Your task to perform on an android device: turn vacation reply on in the gmail app Image 0: 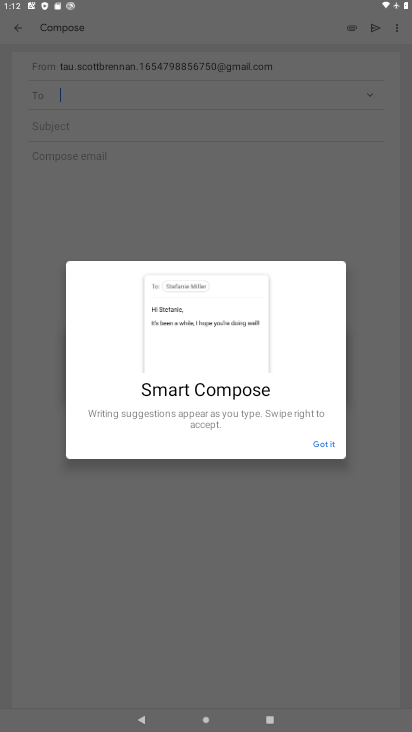
Step 0: press home button
Your task to perform on an android device: turn vacation reply on in the gmail app Image 1: 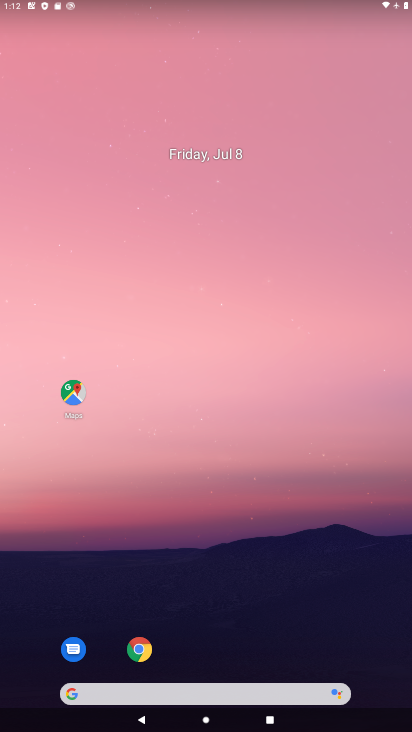
Step 1: drag from (30, 728) to (405, 10)
Your task to perform on an android device: turn vacation reply on in the gmail app Image 2: 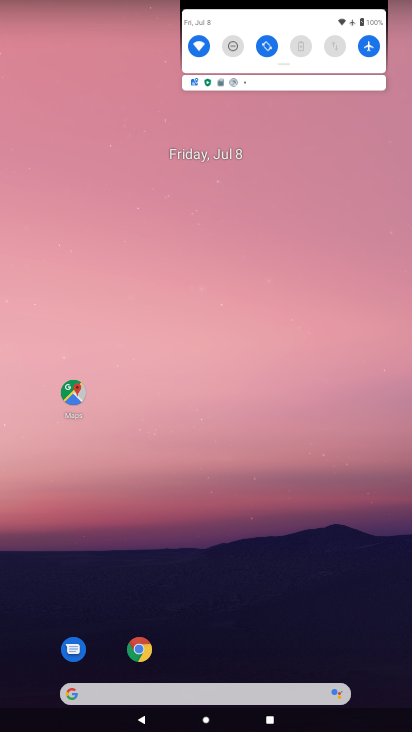
Step 2: drag from (53, 705) to (178, 275)
Your task to perform on an android device: turn vacation reply on in the gmail app Image 3: 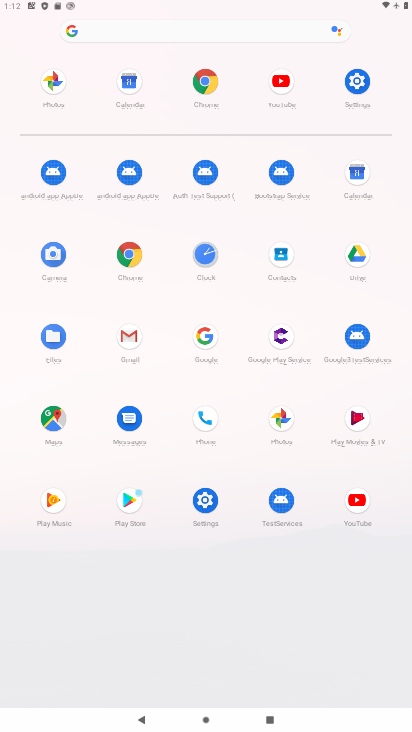
Step 3: click (128, 337)
Your task to perform on an android device: turn vacation reply on in the gmail app Image 4: 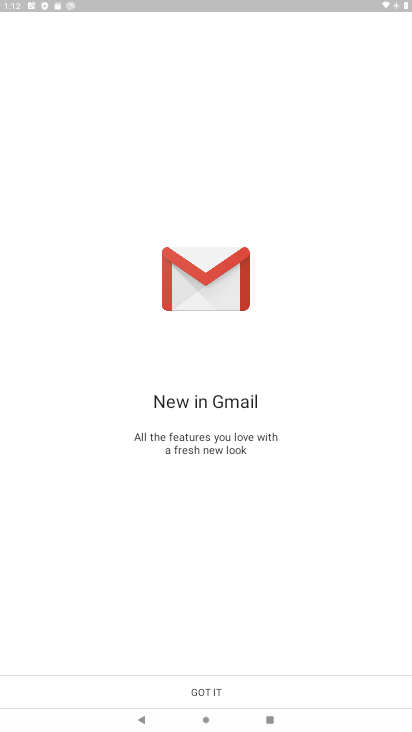
Step 4: click (192, 679)
Your task to perform on an android device: turn vacation reply on in the gmail app Image 5: 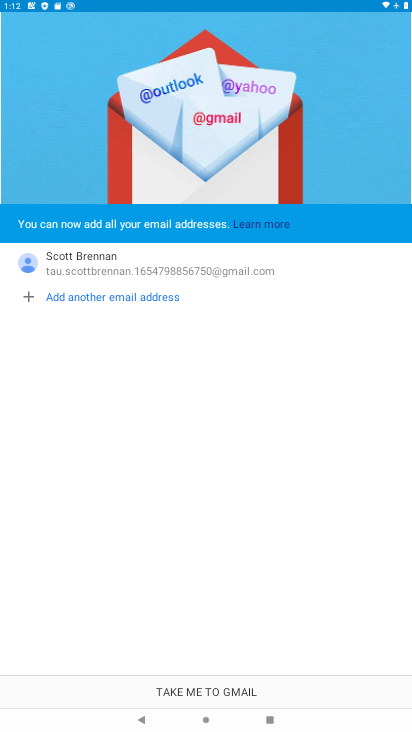
Step 5: click (208, 682)
Your task to perform on an android device: turn vacation reply on in the gmail app Image 6: 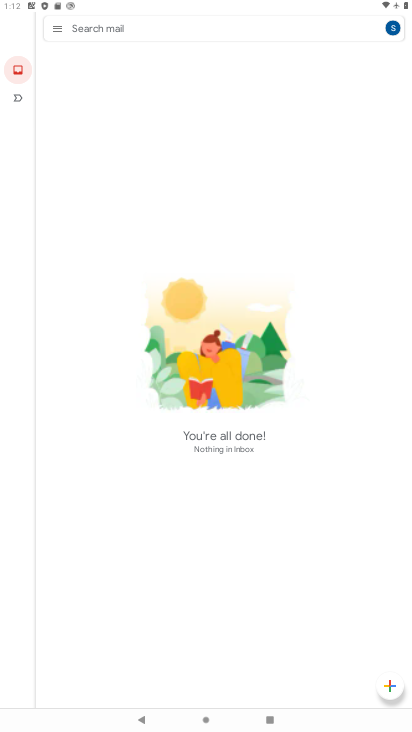
Step 6: click (54, 27)
Your task to perform on an android device: turn vacation reply on in the gmail app Image 7: 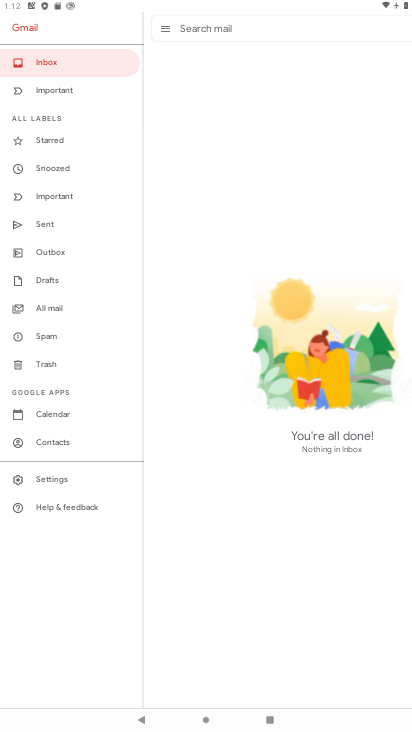
Step 7: click (55, 63)
Your task to perform on an android device: turn vacation reply on in the gmail app Image 8: 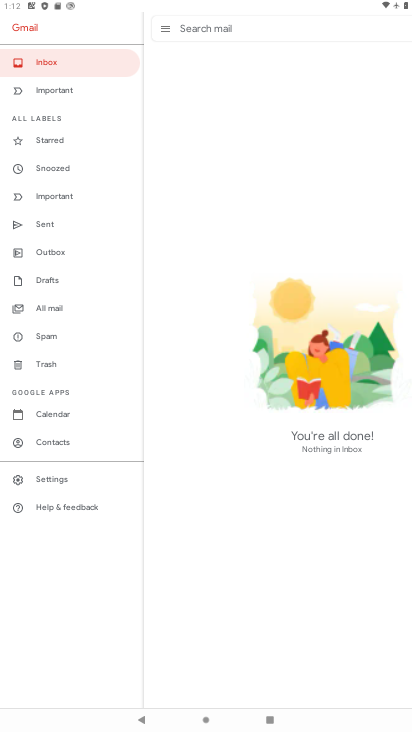
Step 8: click (40, 63)
Your task to perform on an android device: turn vacation reply on in the gmail app Image 9: 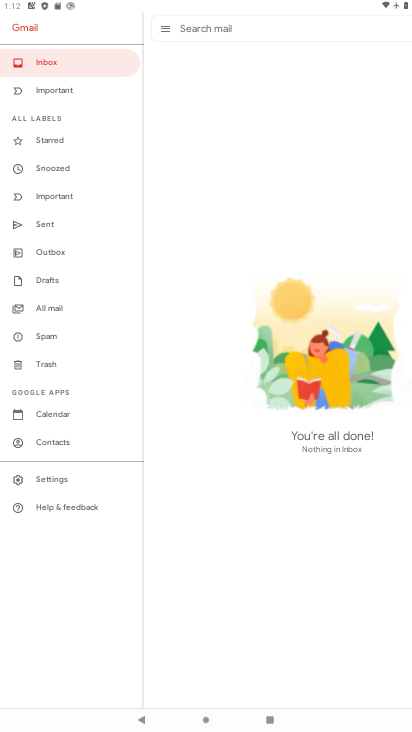
Step 9: task complete